Your task to perform on an android device: check data usage Image 0: 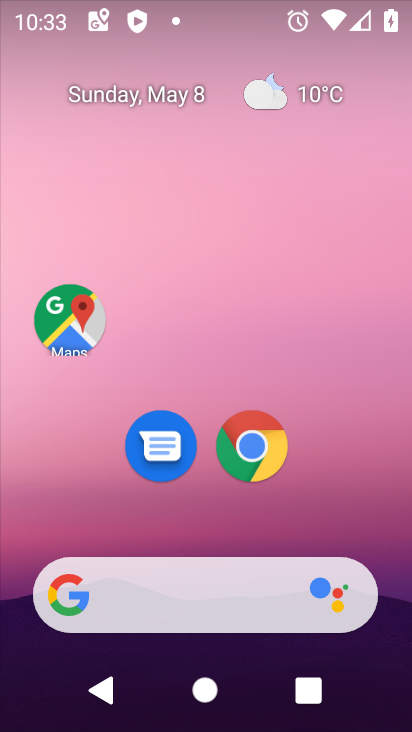
Step 0: drag from (353, 549) to (333, 2)
Your task to perform on an android device: check data usage Image 1: 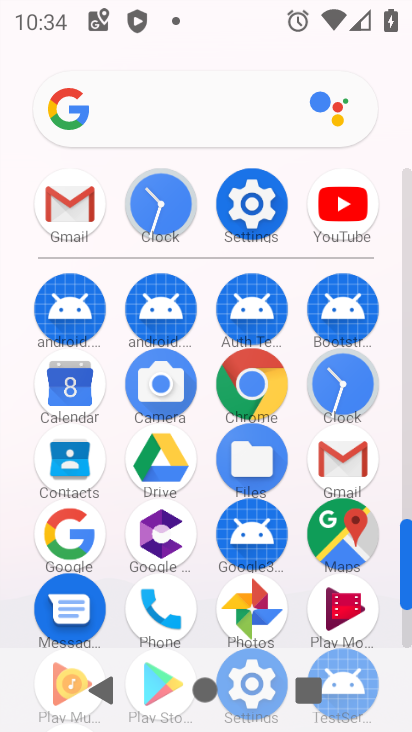
Step 1: click (249, 214)
Your task to perform on an android device: check data usage Image 2: 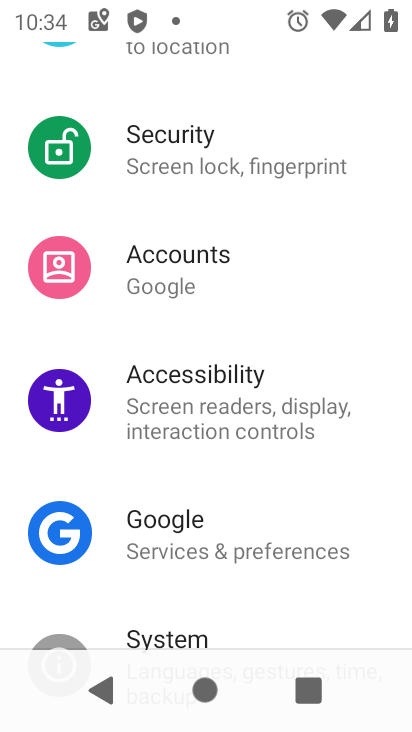
Step 2: drag from (377, 259) to (410, 567)
Your task to perform on an android device: check data usage Image 3: 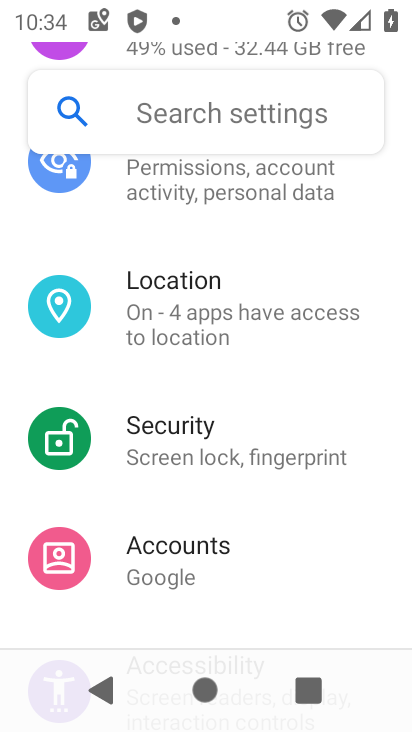
Step 3: drag from (379, 454) to (386, 529)
Your task to perform on an android device: check data usage Image 4: 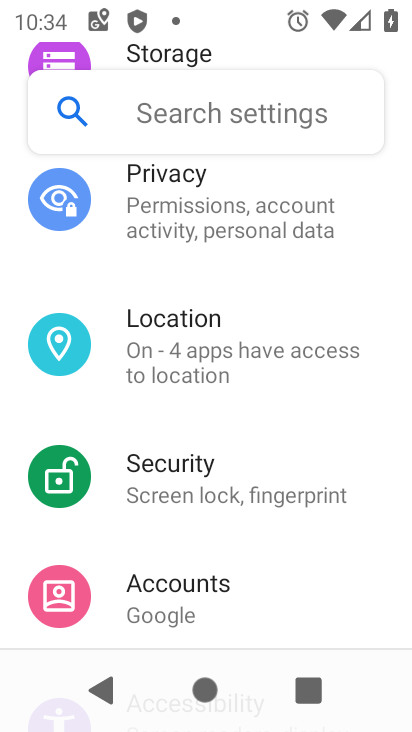
Step 4: drag from (376, 286) to (399, 580)
Your task to perform on an android device: check data usage Image 5: 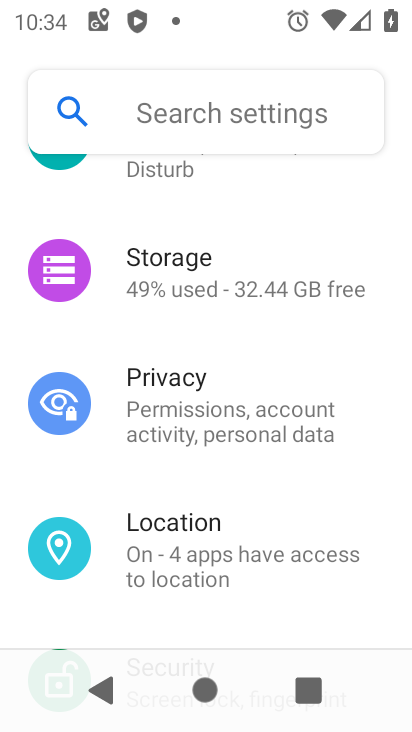
Step 5: drag from (382, 340) to (390, 612)
Your task to perform on an android device: check data usage Image 6: 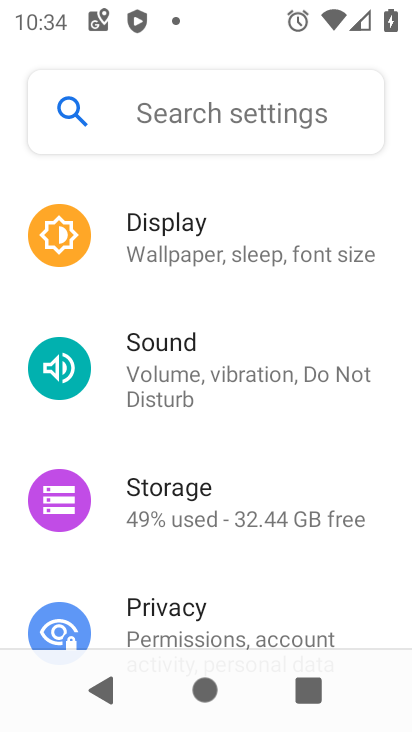
Step 6: drag from (366, 287) to (394, 592)
Your task to perform on an android device: check data usage Image 7: 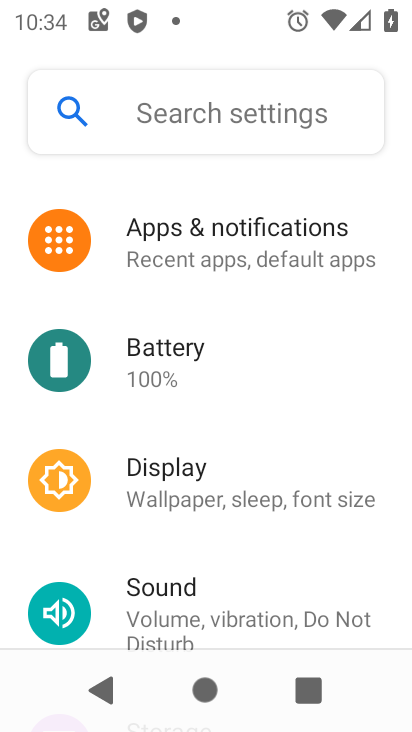
Step 7: drag from (306, 230) to (367, 598)
Your task to perform on an android device: check data usage Image 8: 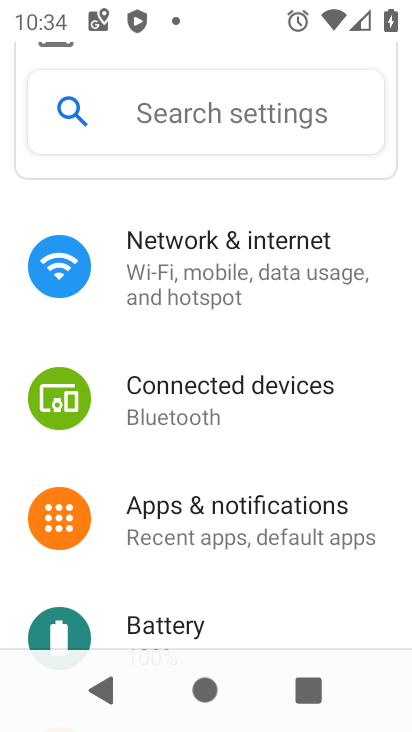
Step 8: click (244, 301)
Your task to perform on an android device: check data usage Image 9: 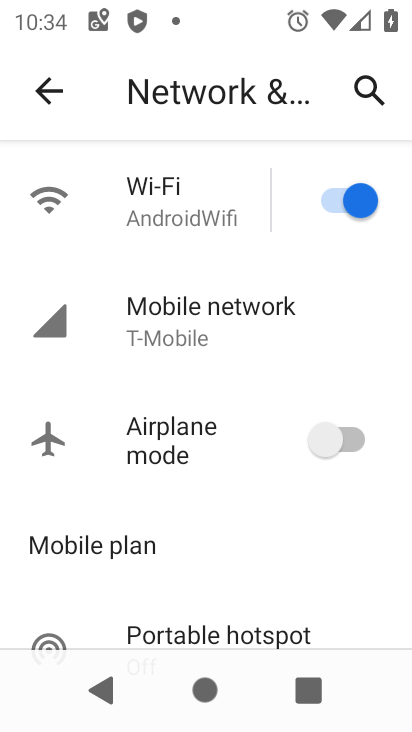
Step 9: click (194, 342)
Your task to perform on an android device: check data usage Image 10: 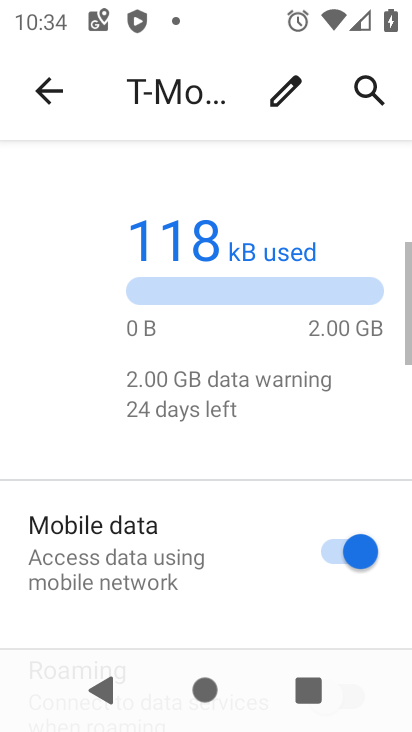
Step 10: drag from (180, 550) to (191, 188)
Your task to perform on an android device: check data usage Image 11: 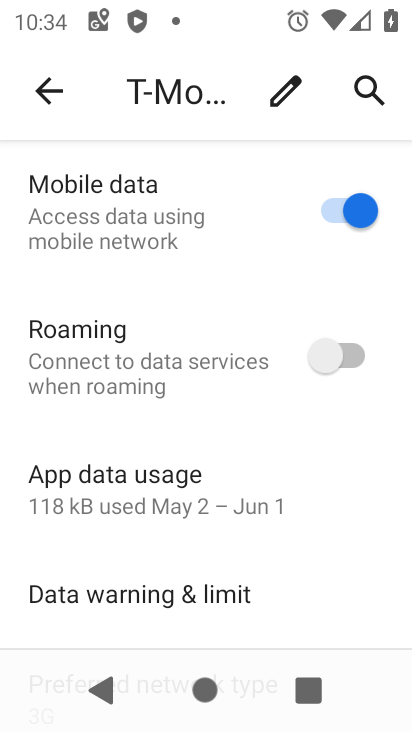
Step 11: click (124, 480)
Your task to perform on an android device: check data usage Image 12: 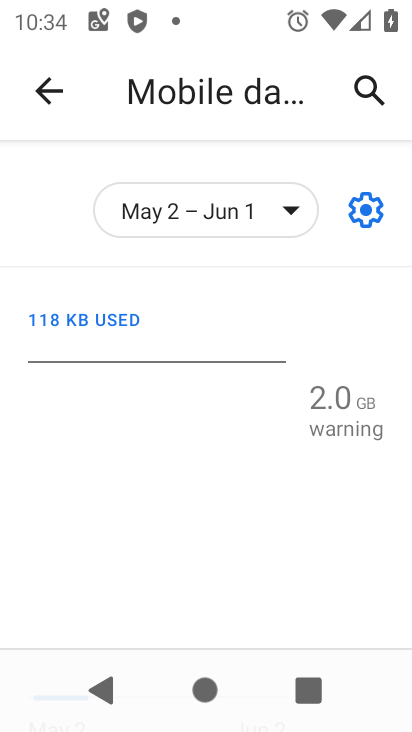
Step 12: task complete